Your task to perform on an android device: What's on my calendar tomorrow? Image 0: 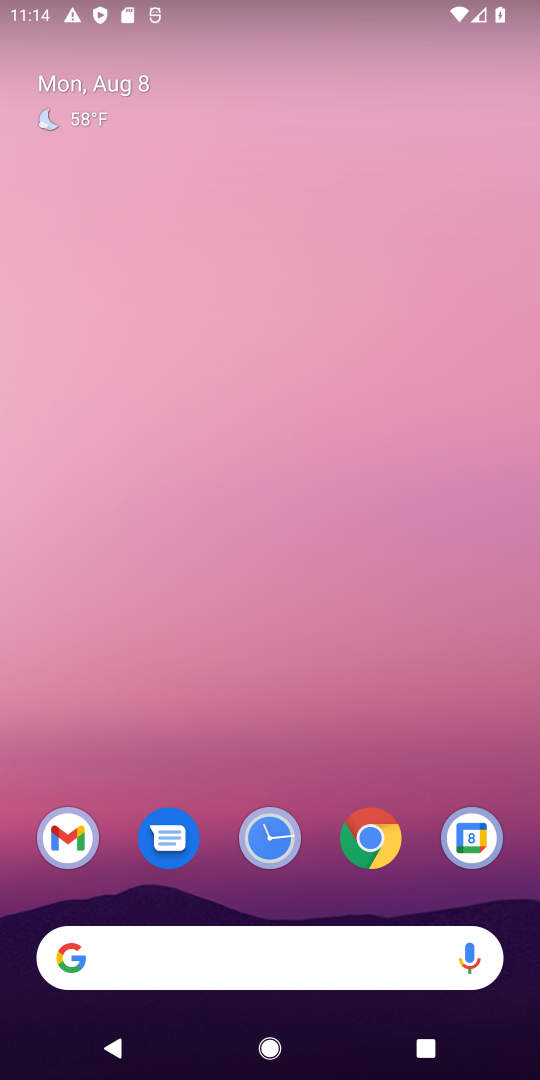
Step 0: press home button
Your task to perform on an android device: What's on my calendar tomorrow? Image 1: 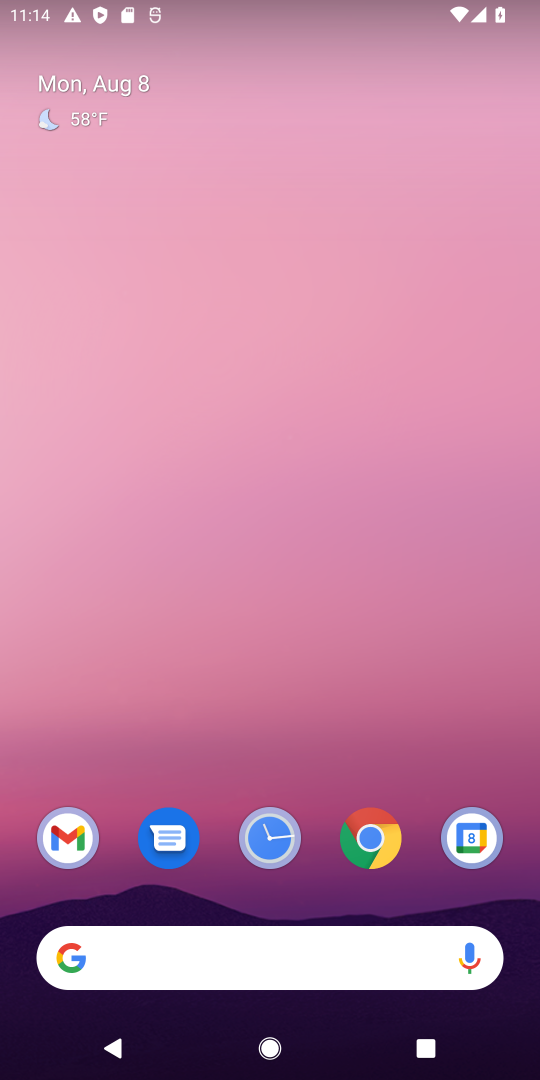
Step 1: drag from (311, 887) to (320, 147)
Your task to perform on an android device: What's on my calendar tomorrow? Image 2: 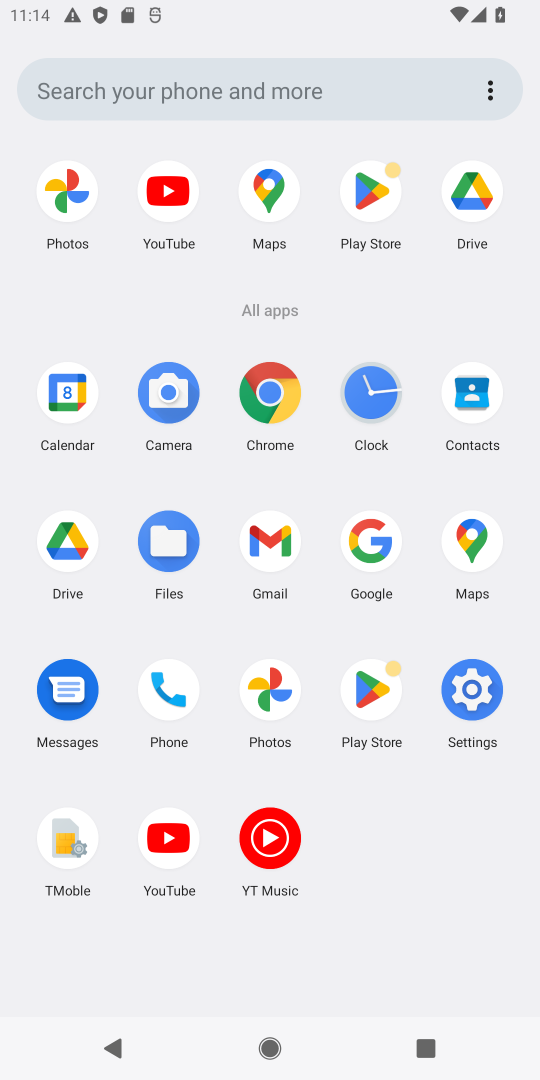
Step 2: click (72, 382)
Your task to perform on an android device: What's on my calendar tomorrow? Image 3: 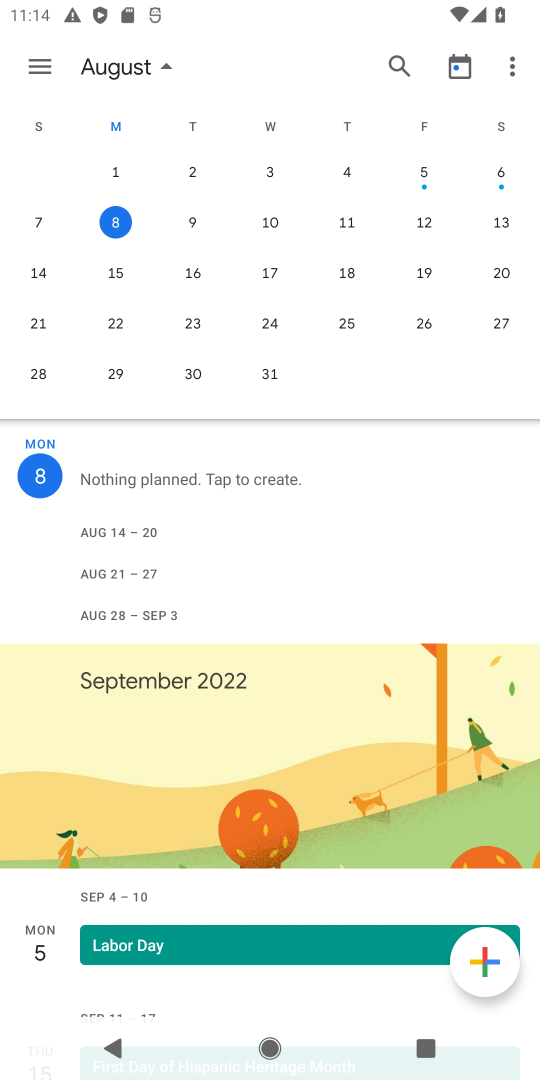
Step 3: click (198, 223)
Your task to perform on an android device: What's on my calendar tomorrow? Image 4: 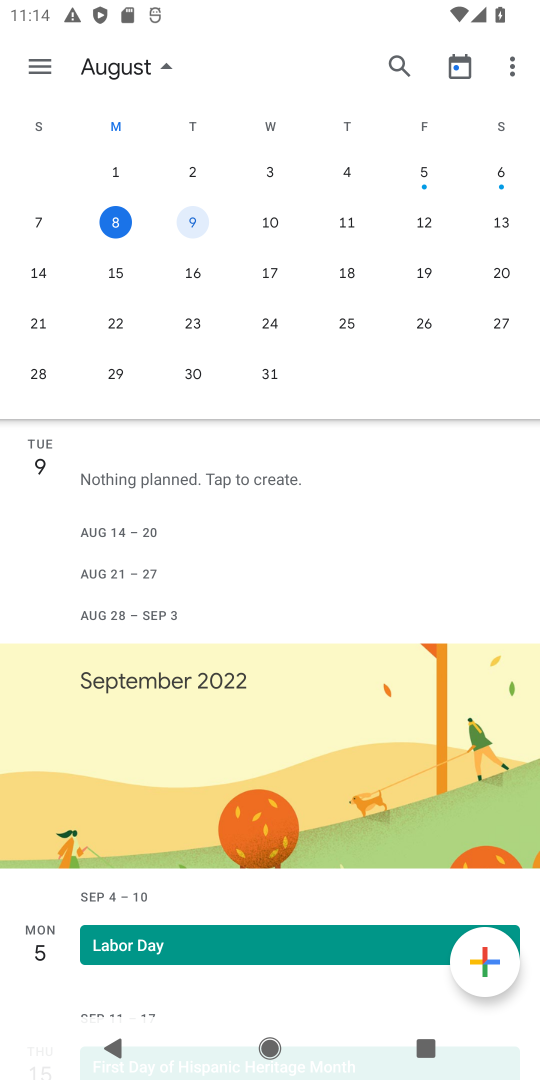
Step 4: task complete